Your task to perform on an android device: Clear the shopping cart on target. Add dell xps to the cart on target Image 0: 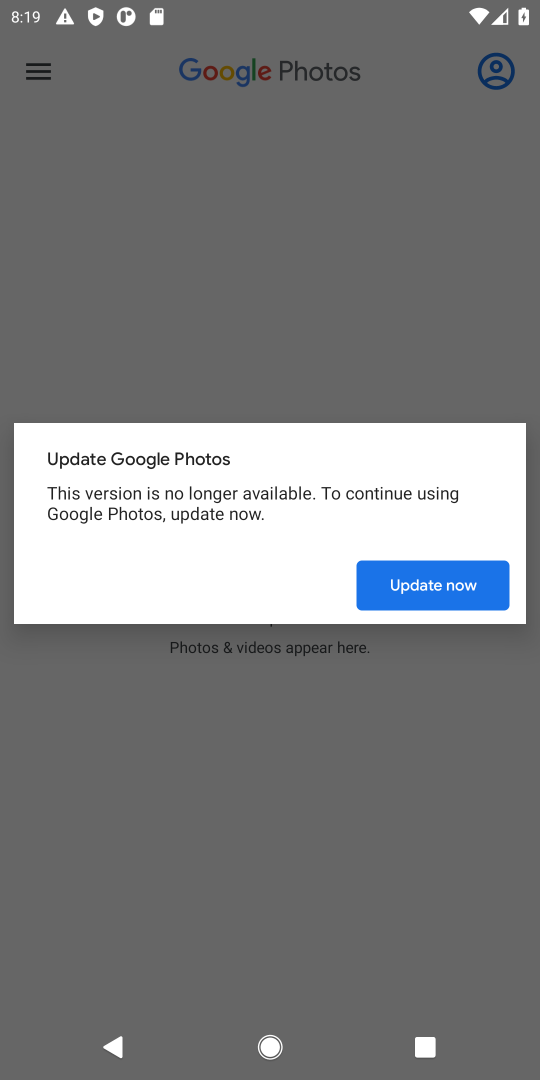
Step 0: press home button
Your task to perform on an android device: Clear the shopping cart on target. Add dell xps to the cart on target Image 1: 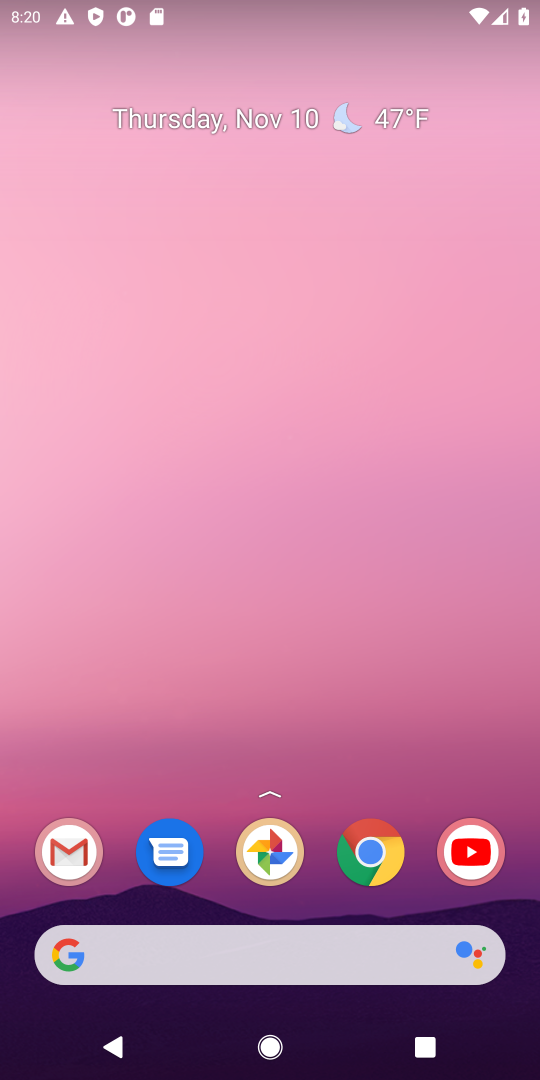
Step 1: click (382, 838)
Your task to perform on an android device: Clear the shopping cart on target. Add dell xps to the cart on target Image 2: 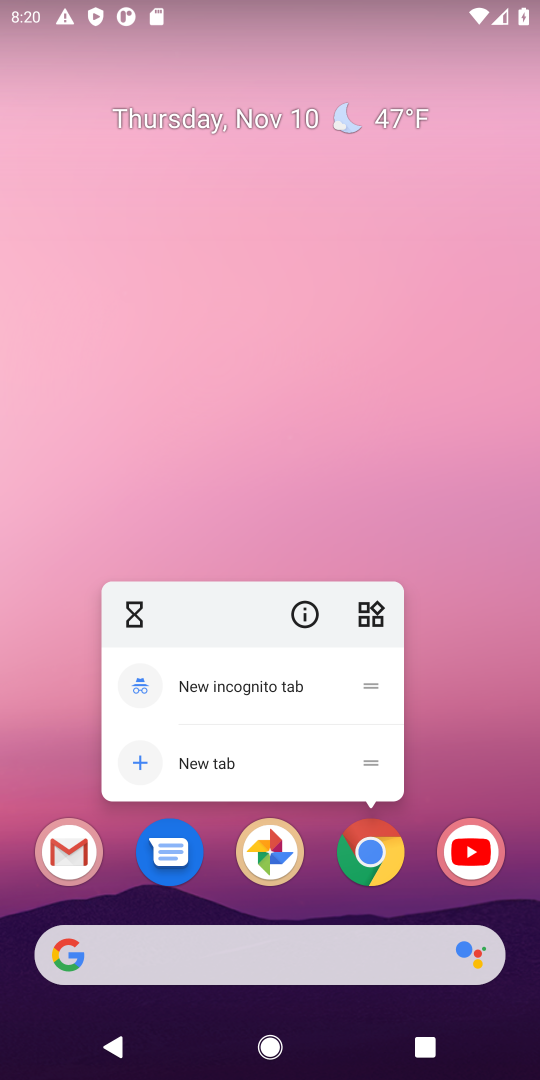
Step 2: click (364, 852)
Your task to perform on an android device: Clear the shopping cart on target. Add dell xps to the cart on target Image 3: 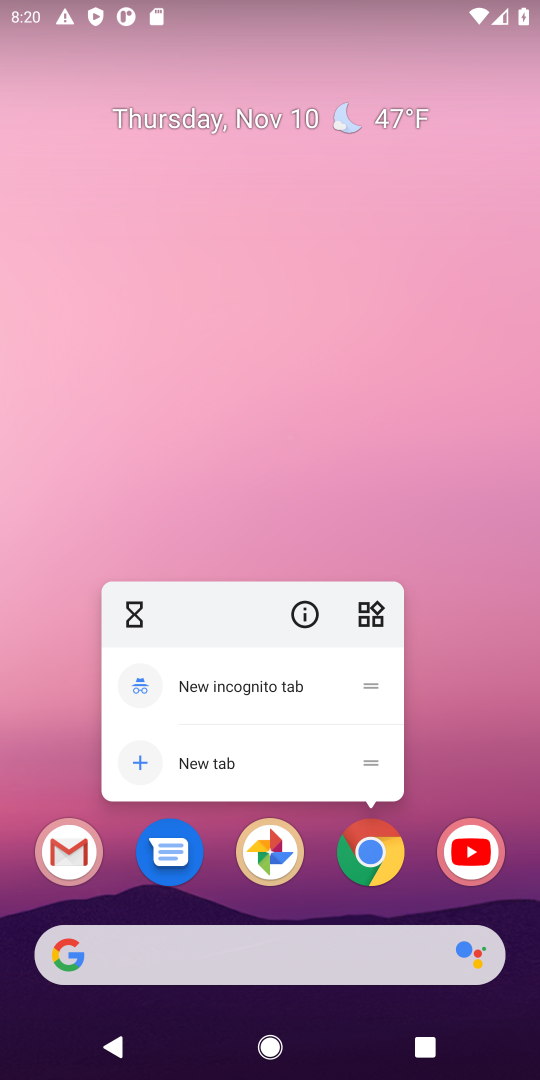
Step 3: click (364, 852)
Your task to perform on an android device: Clear the shopping cart on target. Add dell xps to the cart on target Image 4: 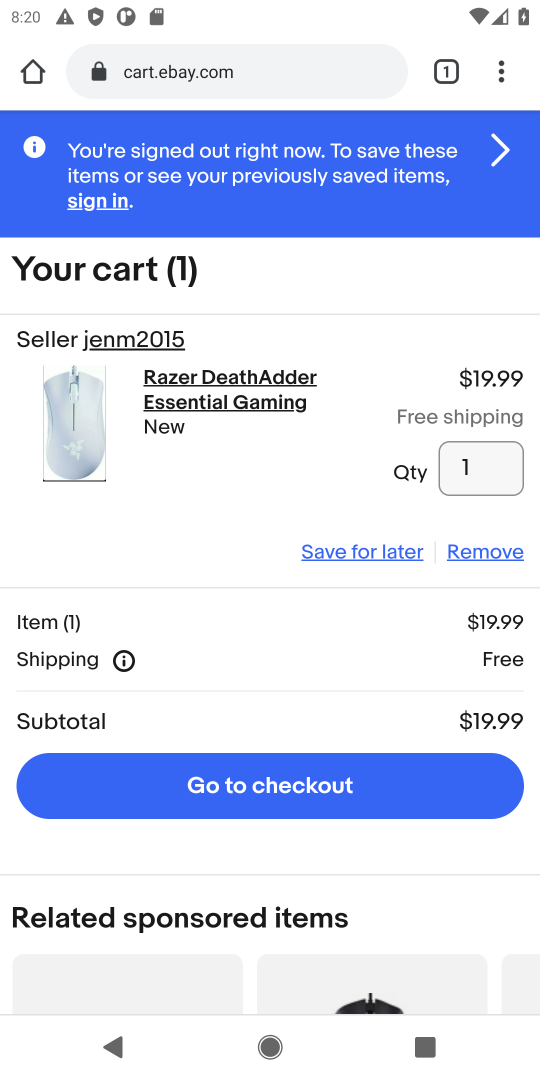
Step 4: click (269, 72)
Your task to perform on an android device: Clear the shopping cart on target. Add dell xps to the cart on target Image 5: 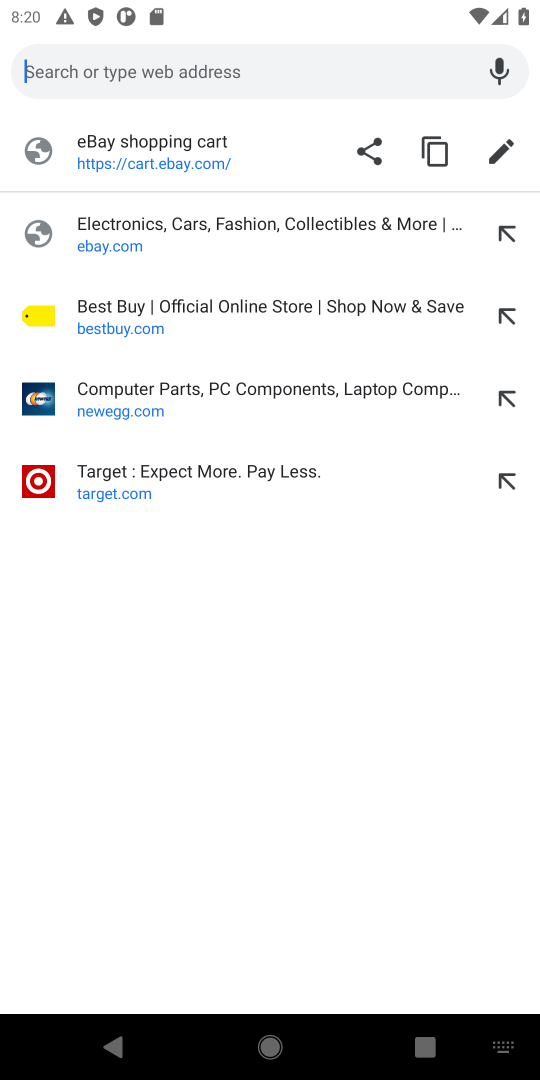
Step 5: click (120, 465)
Your task to perform on an android device: Clear the shopping cart on target. Add dell xps to the cart on target Image 6: 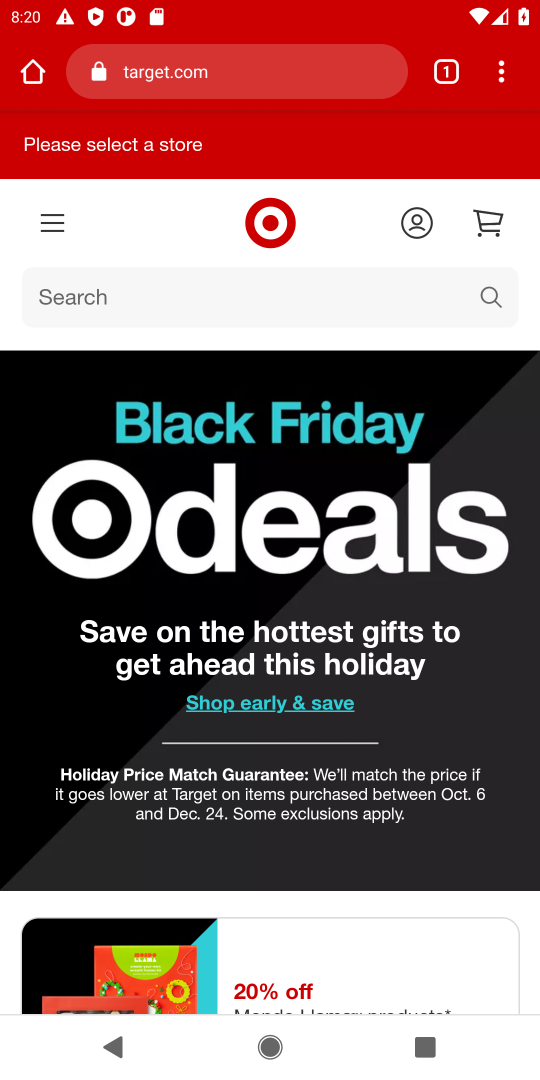
Step 6: click (45, 292)
Your task to perform on an android device: Clear the shopping cart on target. Add dell xps to the cart on target Image 7: 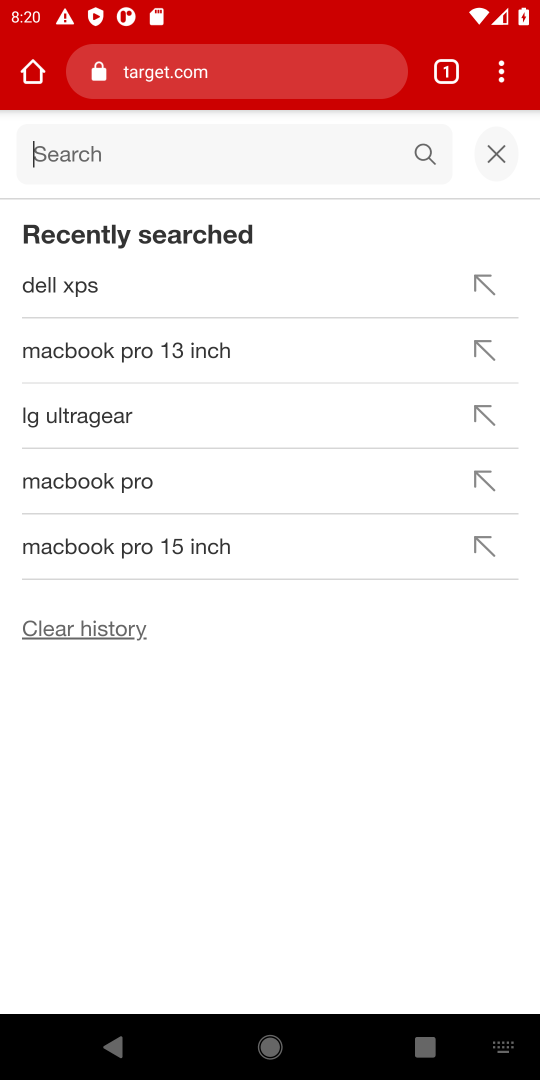
Step 7: type "dell xps"
Your task to perform on an android device: Clear the shopping cart on target. Add dell xps to the cart on target Image 8: 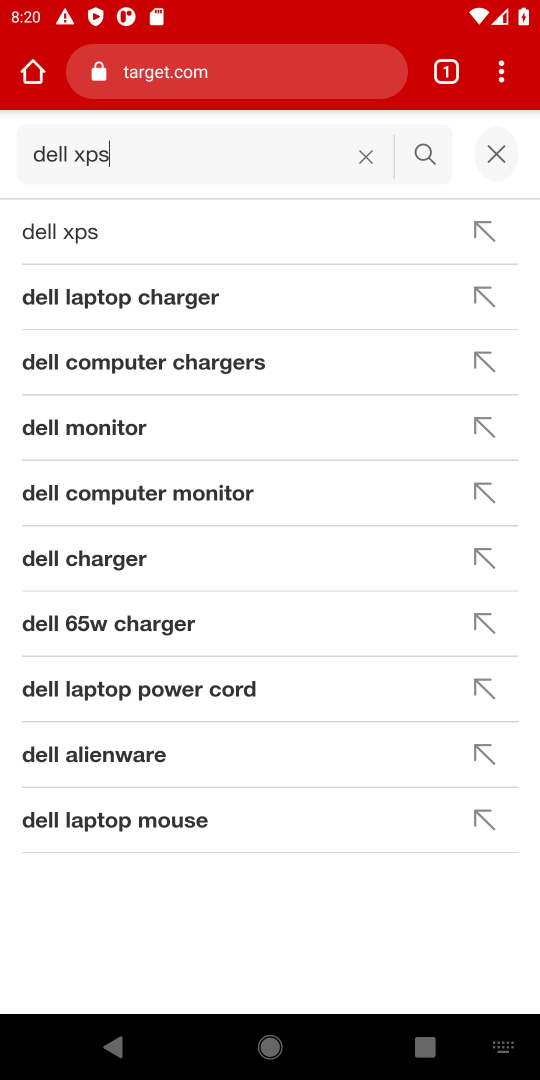
Step 8: press enter
Your task to perform on an android device: Clear the shopping cart on target. Add dell xps to the cart on target Image 9: 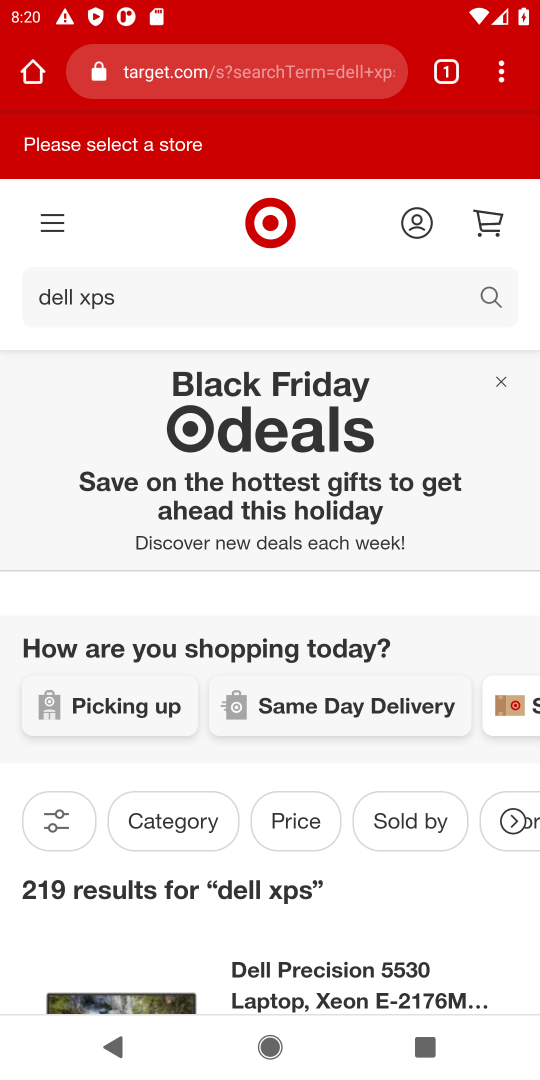
Step 9: task complete